Your task to perform on an android device: visit the assistant section in the google photos Image 0: 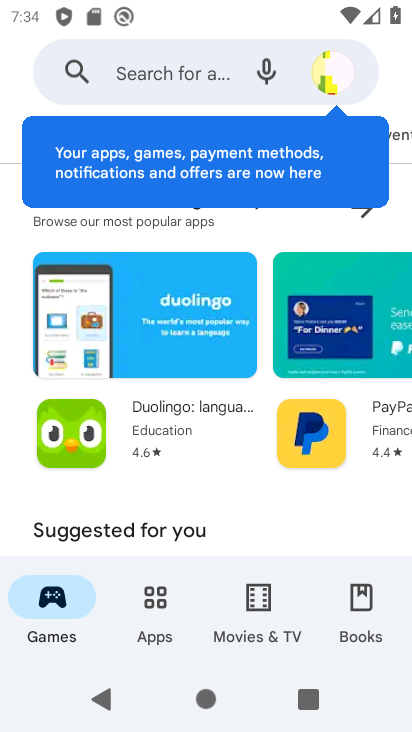
Step 0: press home button
Your task to perform on an android device: visit the assistant section in the google photos Image 1: 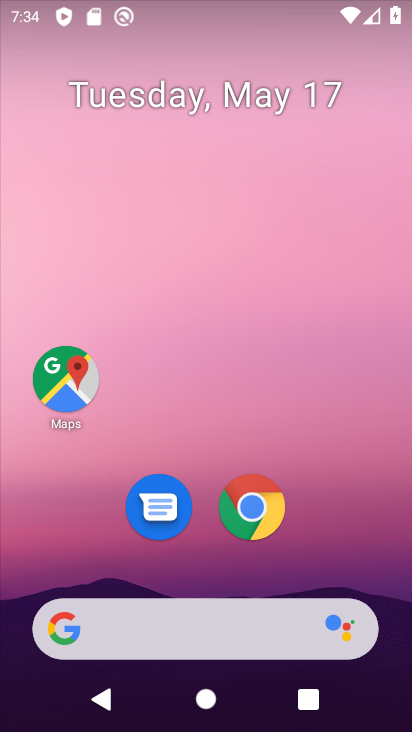
Step 1: drag from (346, 592) to (342, 4)
Your task to perform on an android device: visit the assistant section in the google photos Image 2: 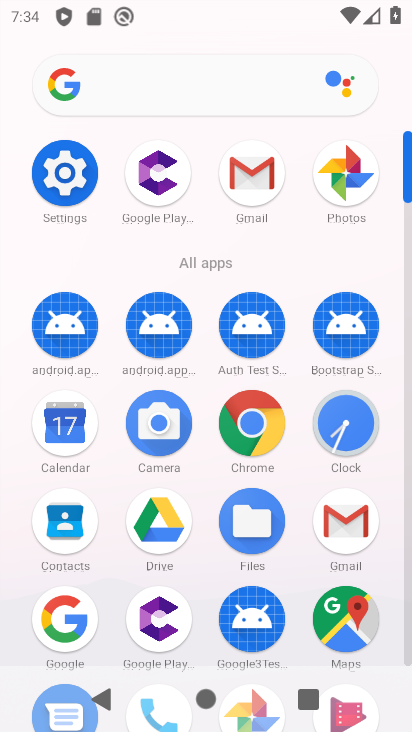
Step 2: click (350, 185)
Your task to perform on an android device: visit the assistant section in the google photos Image 3: 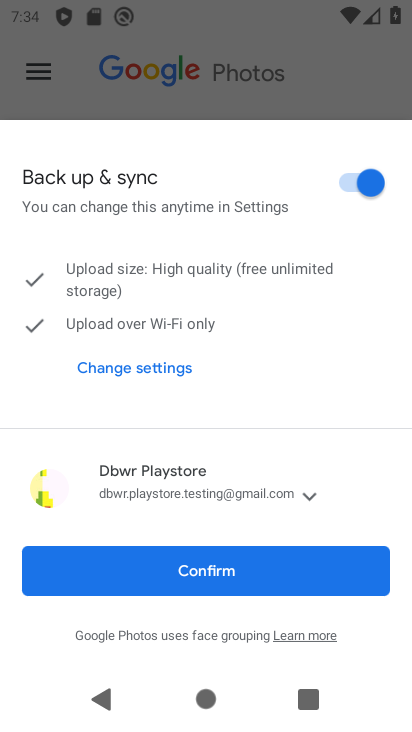
Step 3: click (212, 570)
Your task to perform on an android device: visit the assistant section in the google photos Image 4: 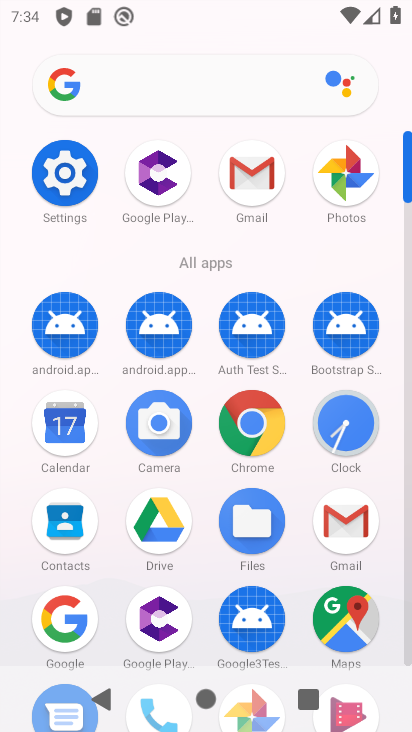
Step 4: click (352, 177)
Your task to perform on an android device: visit the assistant section in the google photos Image 5: 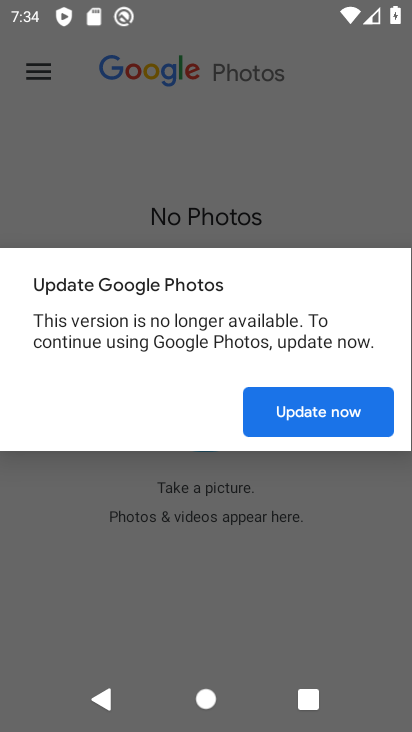
Step 5: click (333, 408)
Your task to perform on an android device: visit the assistant section in the google photos Image 6: 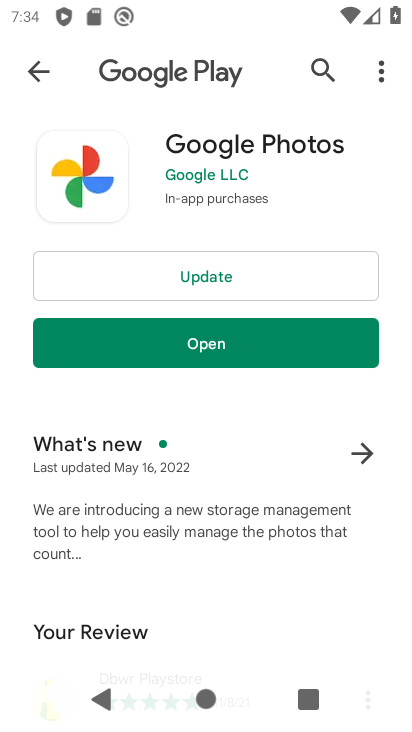
Step 6: click (189, 342)
Your task to perform on an android device: visit the assistant section in the google photos Image 7: 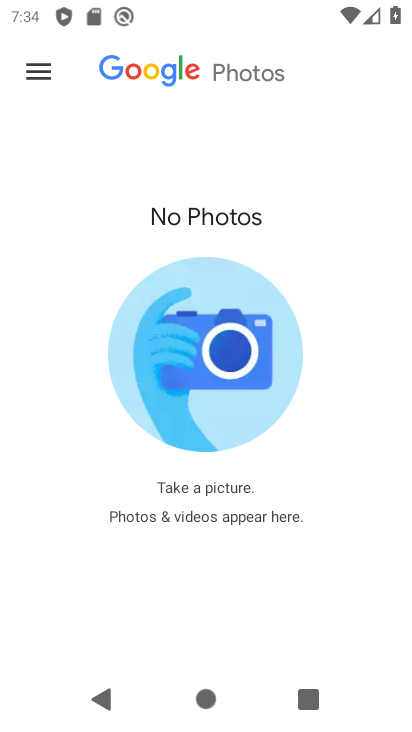
Step 7: click (42, 74)
Your task to perform on an android device: visit the assistant section in the google photos Image 8: 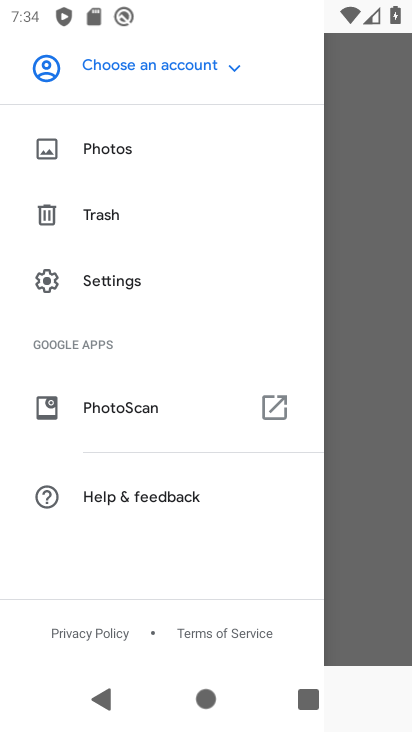
Step 8: task complete